Your task to perform on an android device: Show me recent news Image 0: 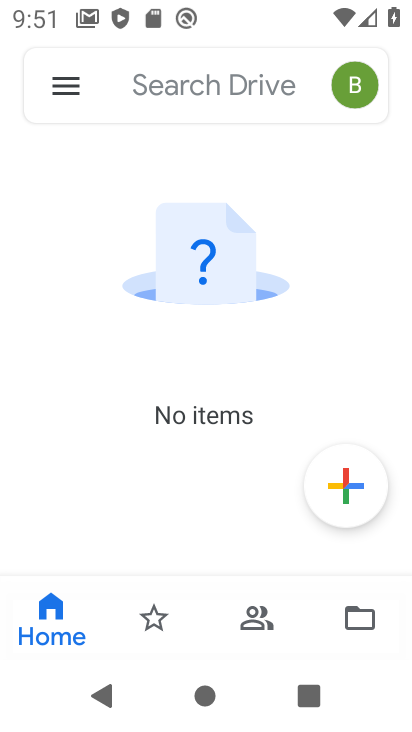
Step 0: press home button
Your task to perform on an android device: Show me recent news Image 1: 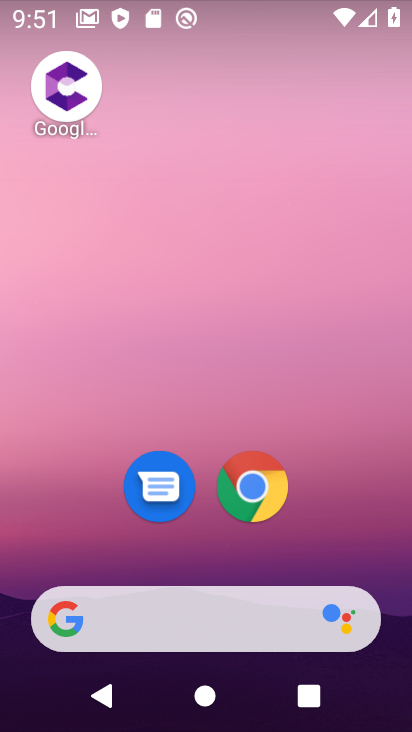
Step 1: click (267, 630)
Your task to perform on an android device: Show me recent news Image 2: 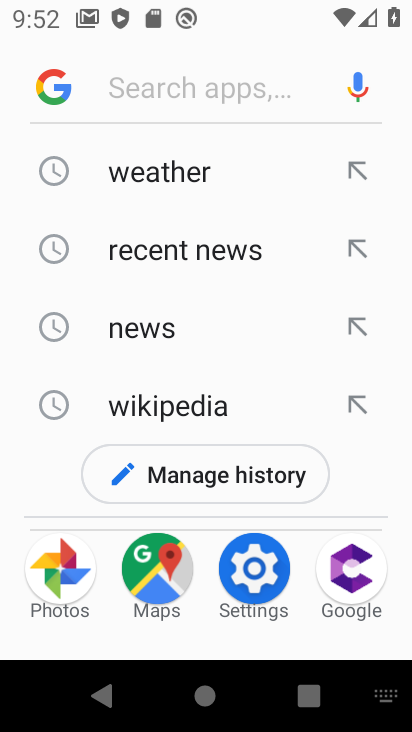
Step 2: click (224, 254)
Your task to perform on an android device: Show me recent news Image 3: 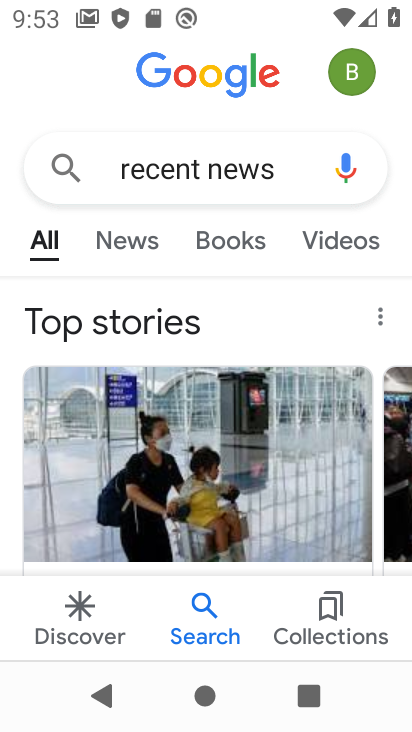
Step 3: task complete